Your task to perform on an android device: Go to CNN.com Image 0: 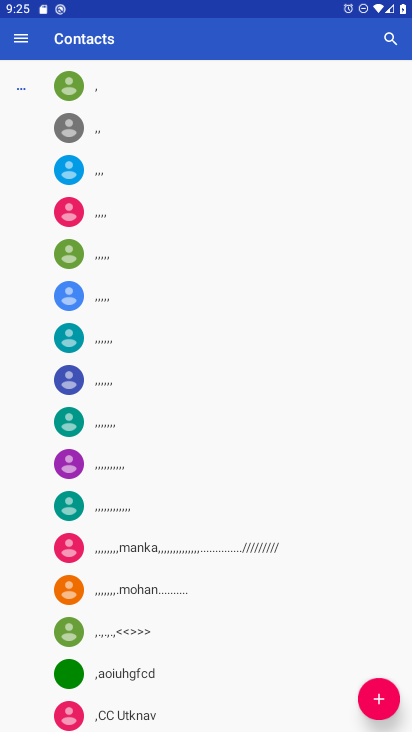
Step 0: press home button
Your task to perform on an android device: Go to CNN.com Image 1: 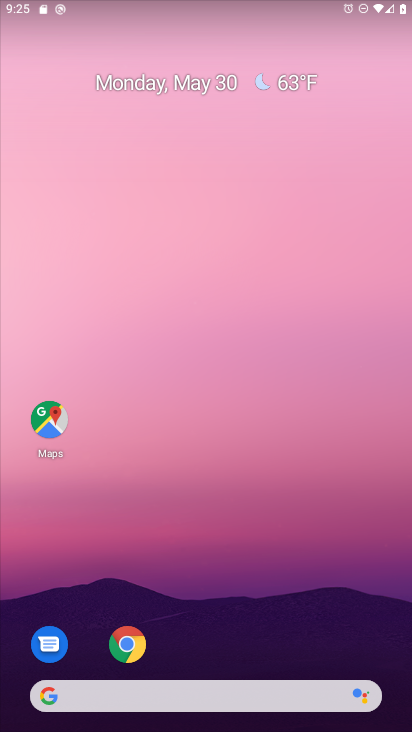
Step 1: drag from (196, 639) to (213, 49)
Your task to perform on an android device: Go to CNN.com Image 2: 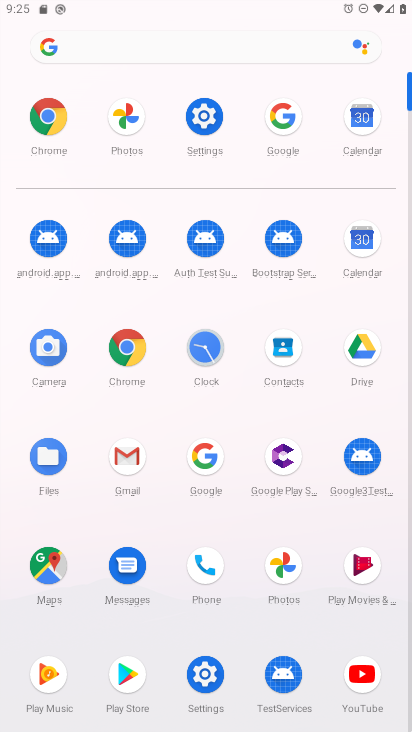
Step 2: click (282, 118)
Your task to perform on an android device: Go to CNN.com Image 3: 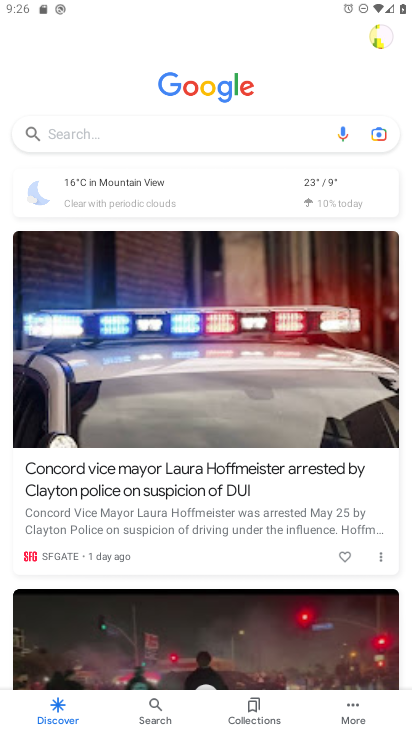
Step 3: task complete